Your task to perform on an android device: Open Google Chrome and click the shortcut for Amazon.com Image 0: 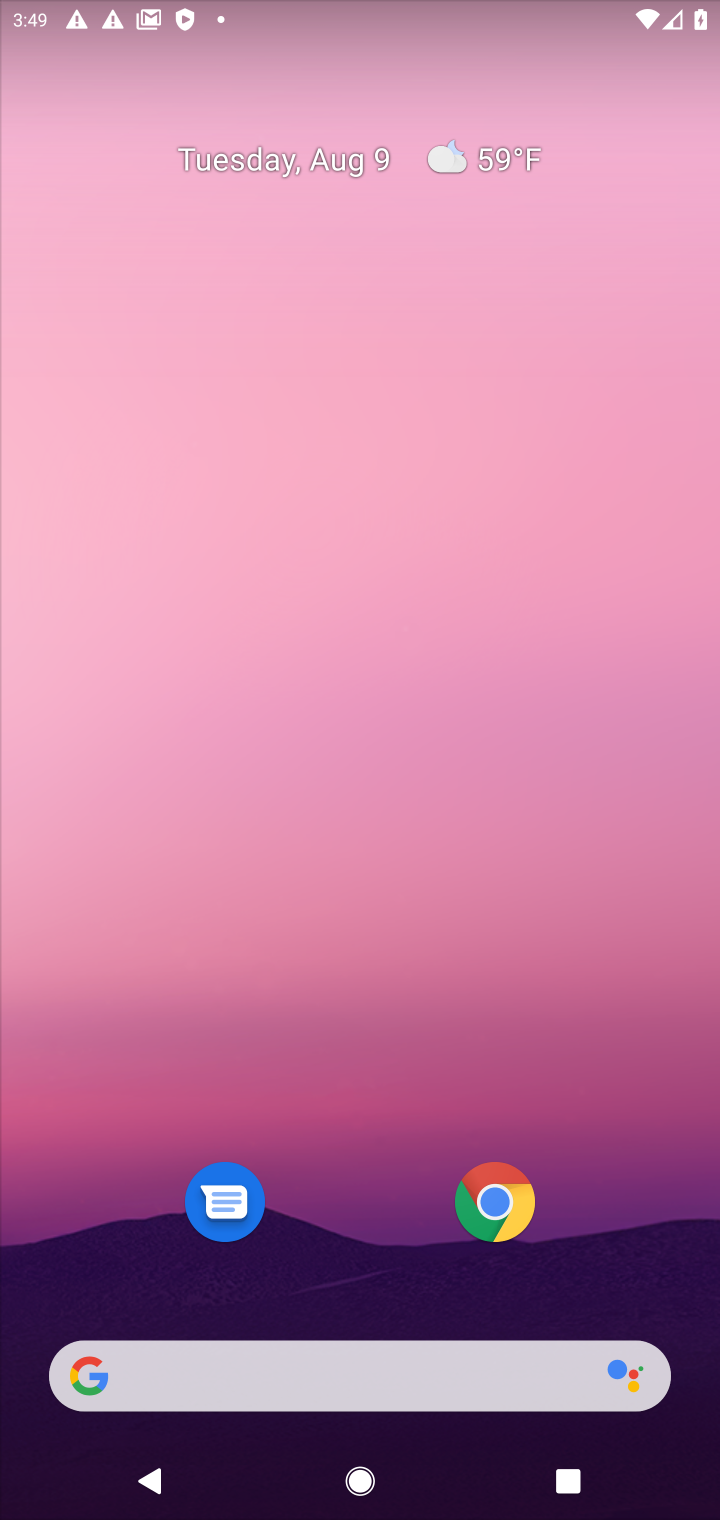
Step 0: press home button
Your task to perform on an android device: Open Google Chrome and click the shortcut for Amazon.com Image 1: 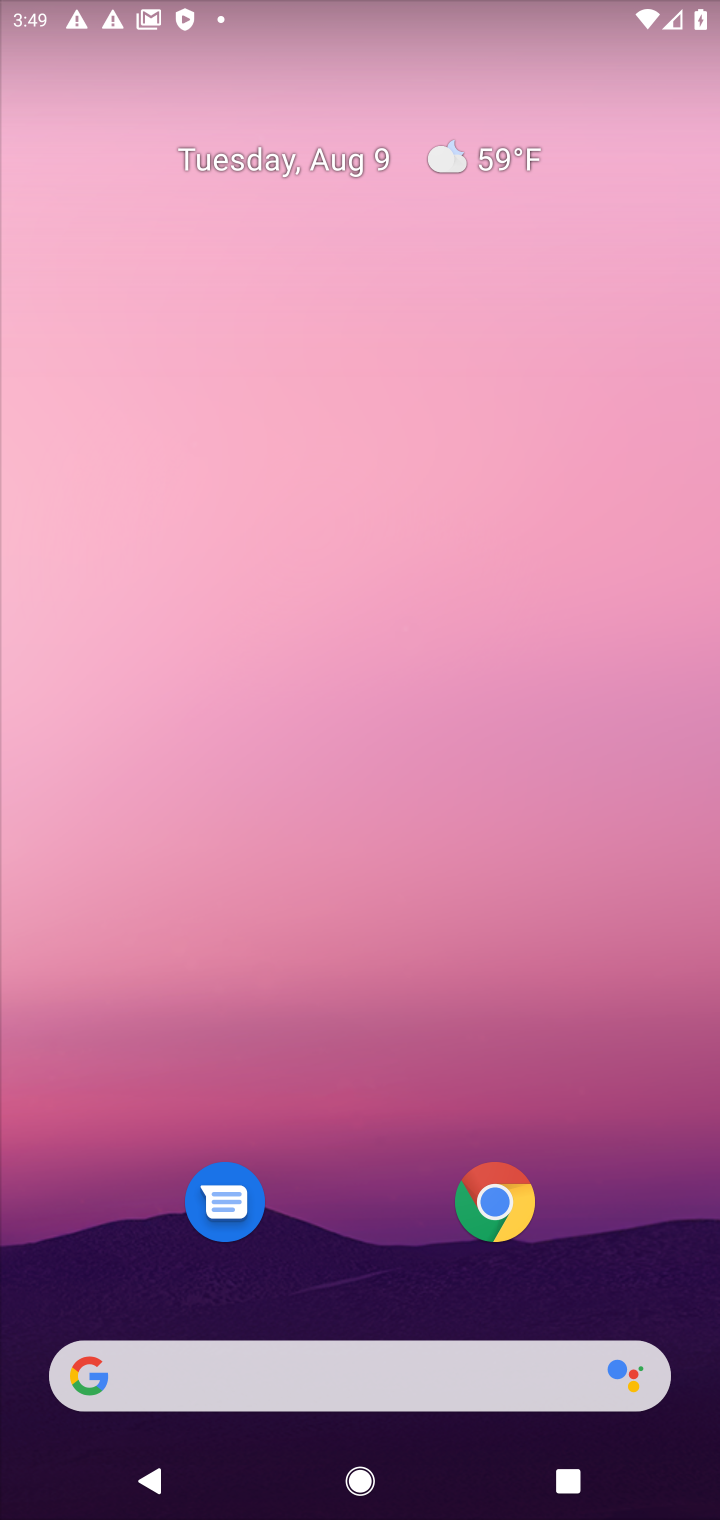
Step 1: drag from (371, 1289) to (428, 287)
Your task to perform on an android device: Open Google Chrome and click the shortcut for Amazon.com Image 2: 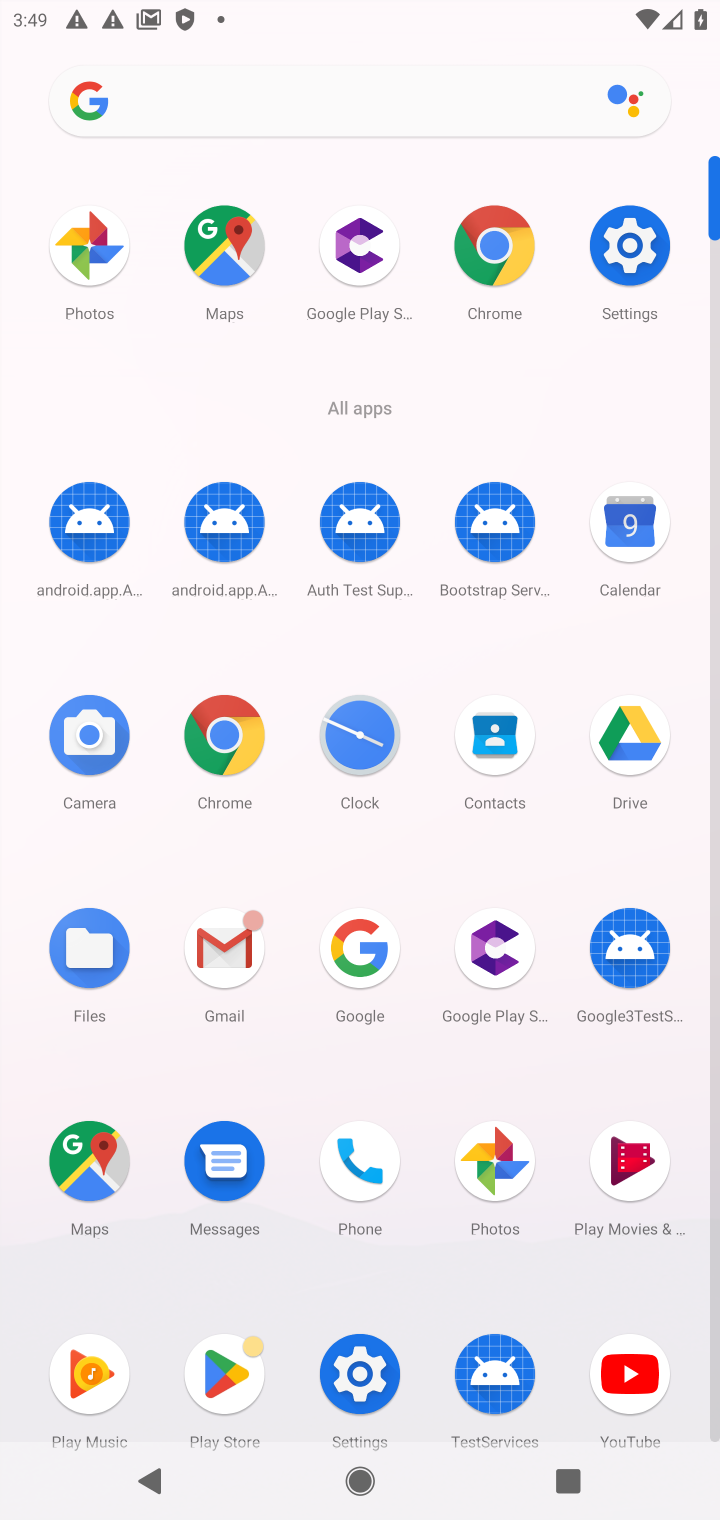
Step 2: click (231, 730)
Your task to perform on an android device: Open Google Chrome and click the shortcut for Amazon.com Image 3: 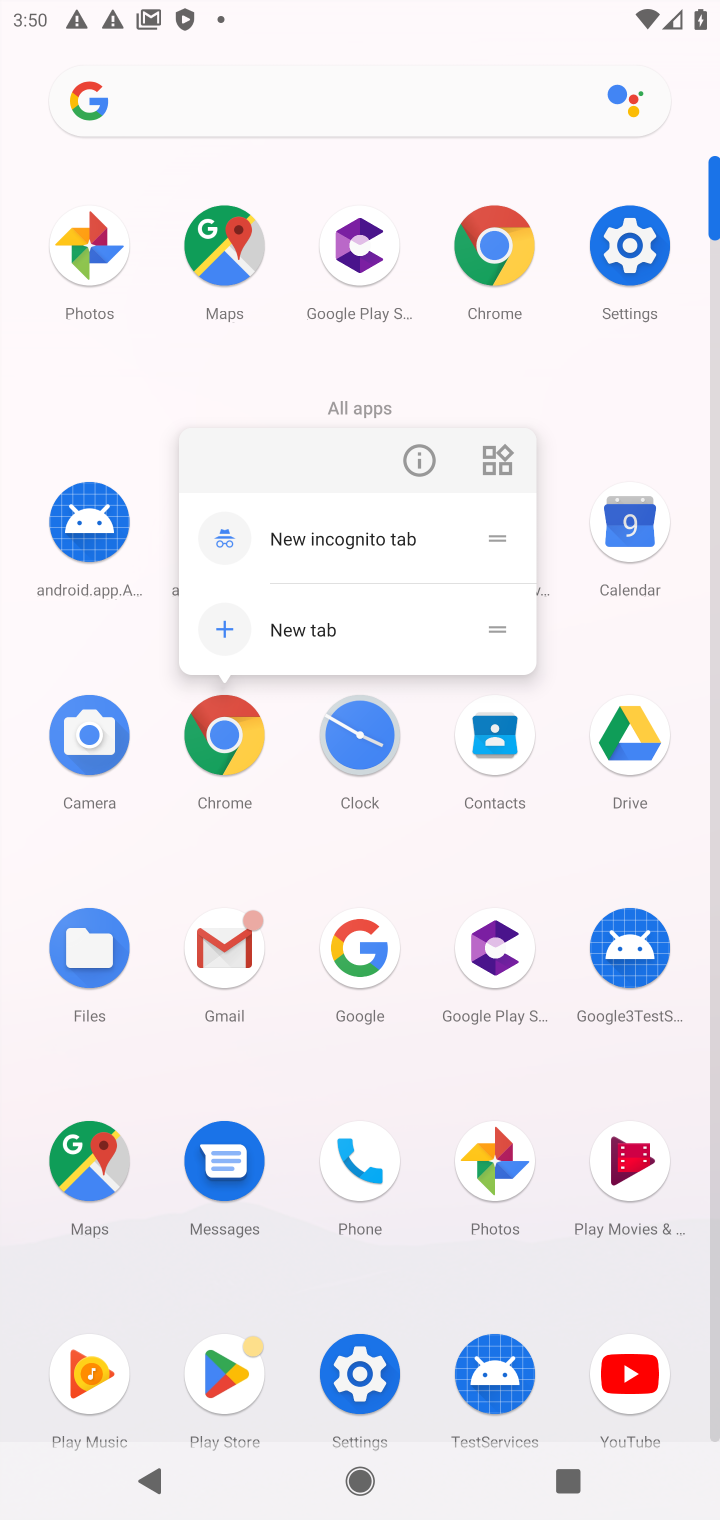
Step 3: click (216, 727)
Your task to perform on an android device: Open Google Chrome and click the shortcut for Amazon.com Image 4: 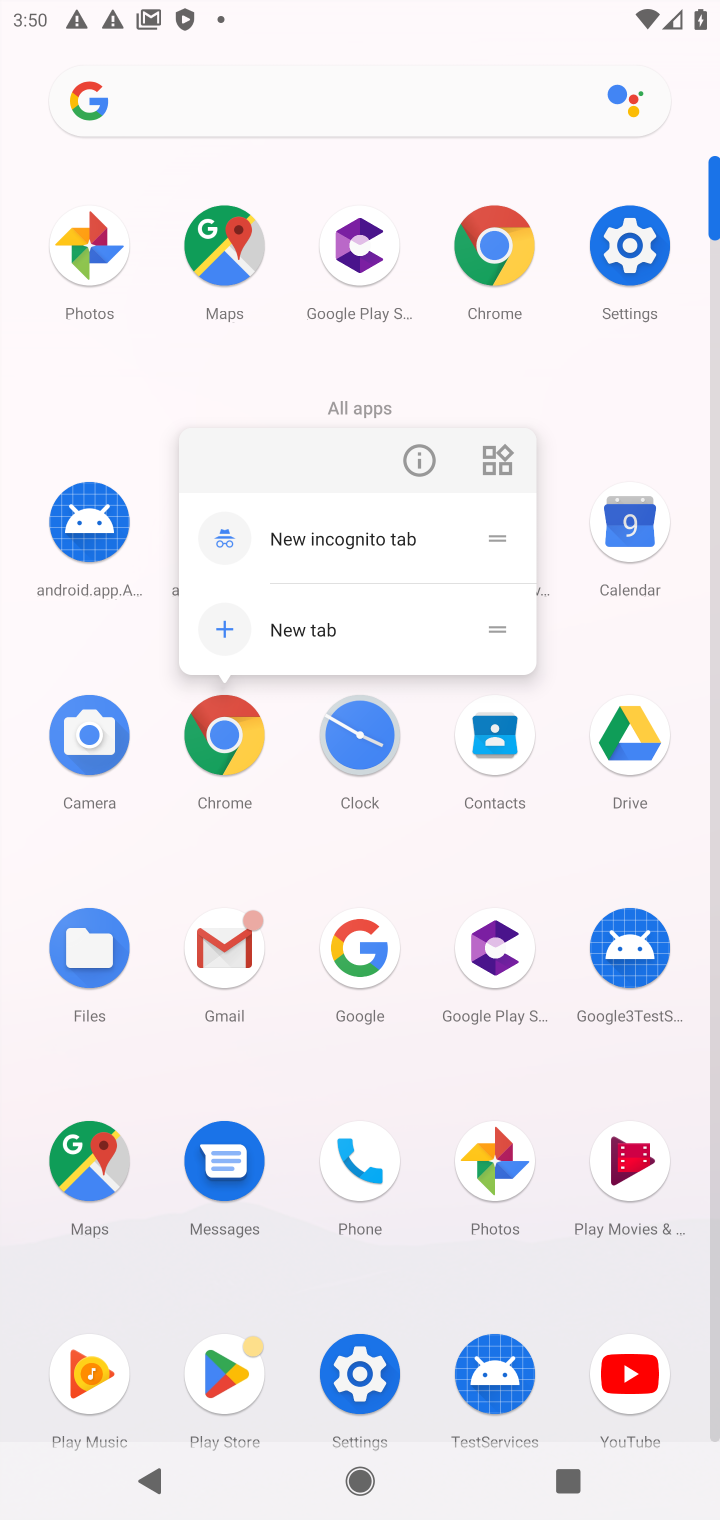
Step 4: click (217, 726)
Your task to perform on an android device: Open Google Chrome and click the shortcut for Amazon.com Image 5: 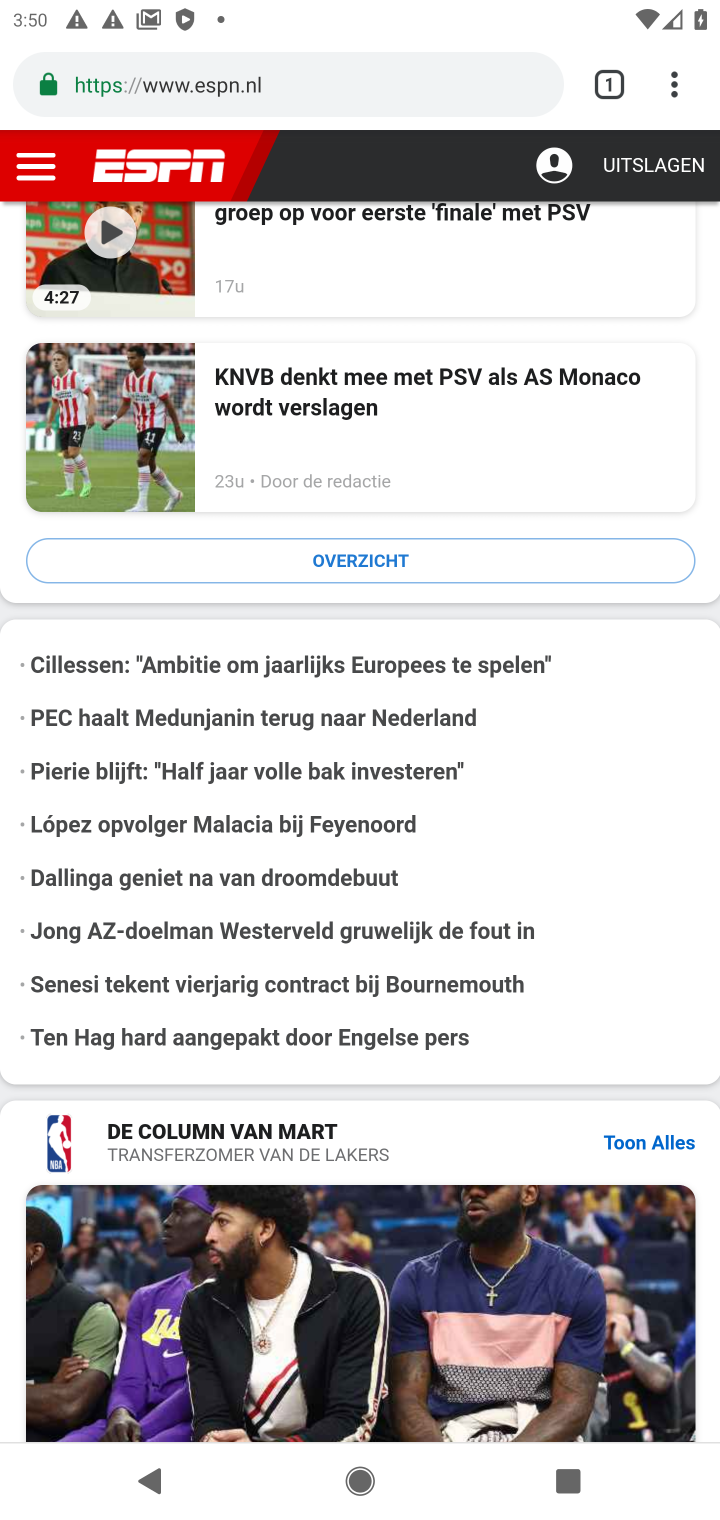
Step 5: click (618, 78)
Your task to perform on an android device: Open Google Chrome and click the shortcut for Amazon.com Image 6: 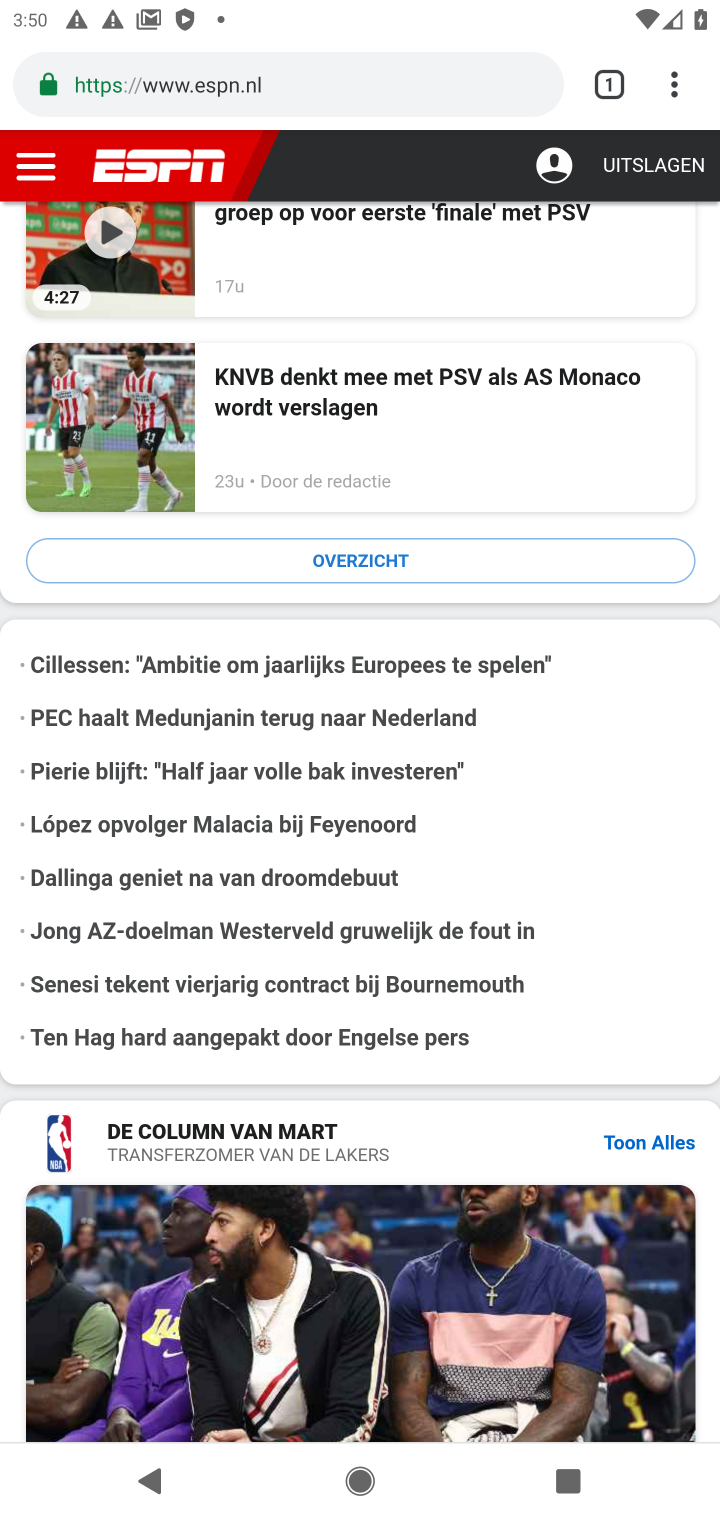
Step 6: click (603, 79)
Your task to perform on an android device: Open Google Chrome and click the shortcut for Amazon.com Image 7: 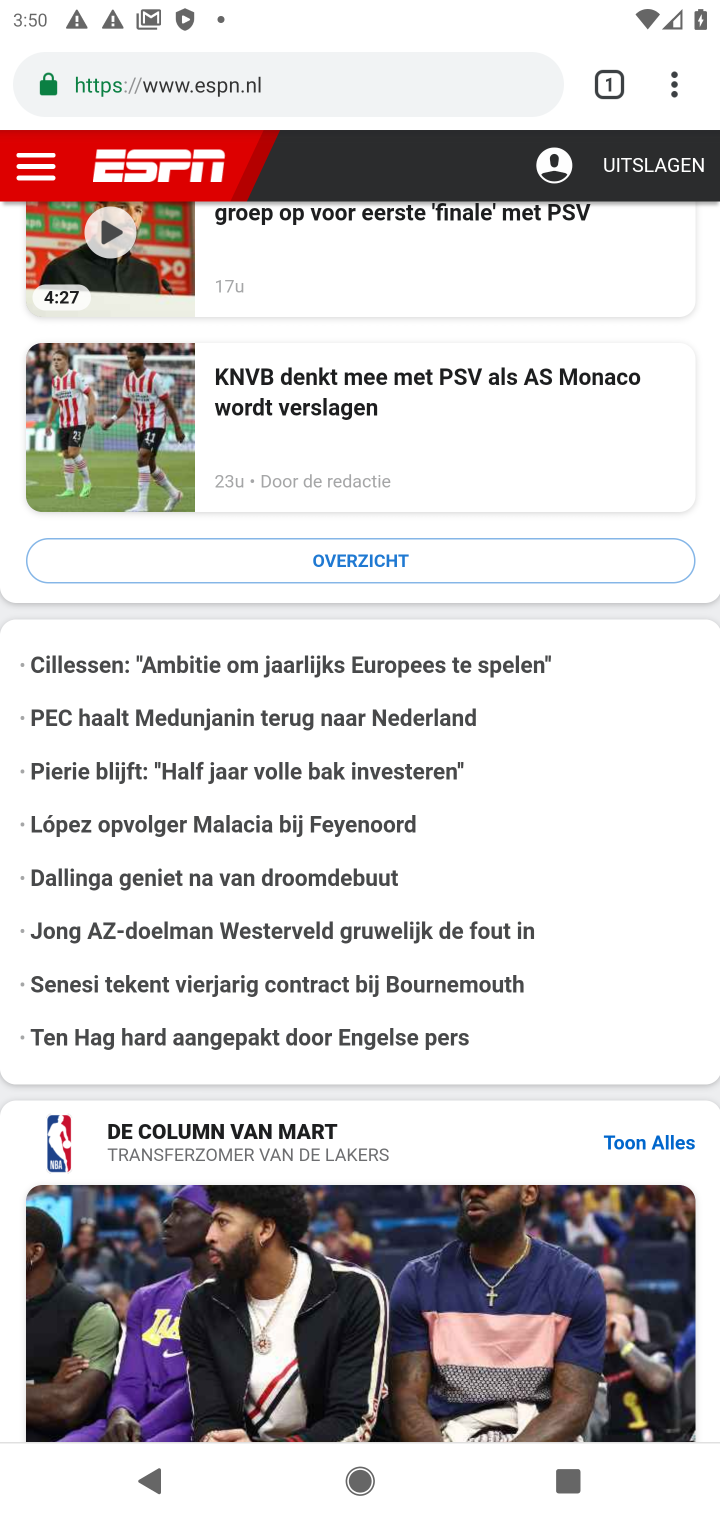
Step 7: click (601, 70)
Your task to perform on an android device: Open Google Chrome and click the shortcut for Amazon.com Image 8: 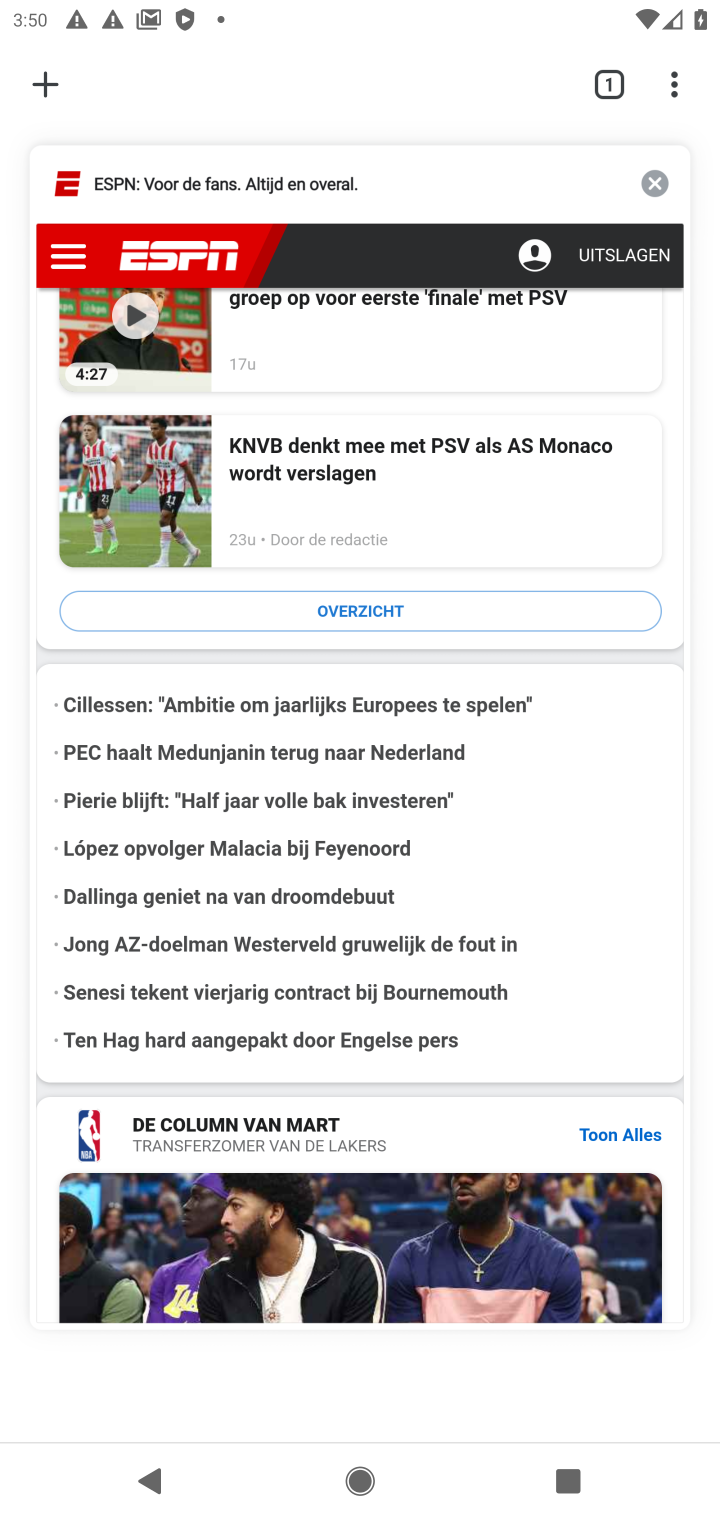
Step 8: click (45, 65)
Your task to perform on an android device: Open Google Chrome and click the shortcut for Amazon.com Image 9: 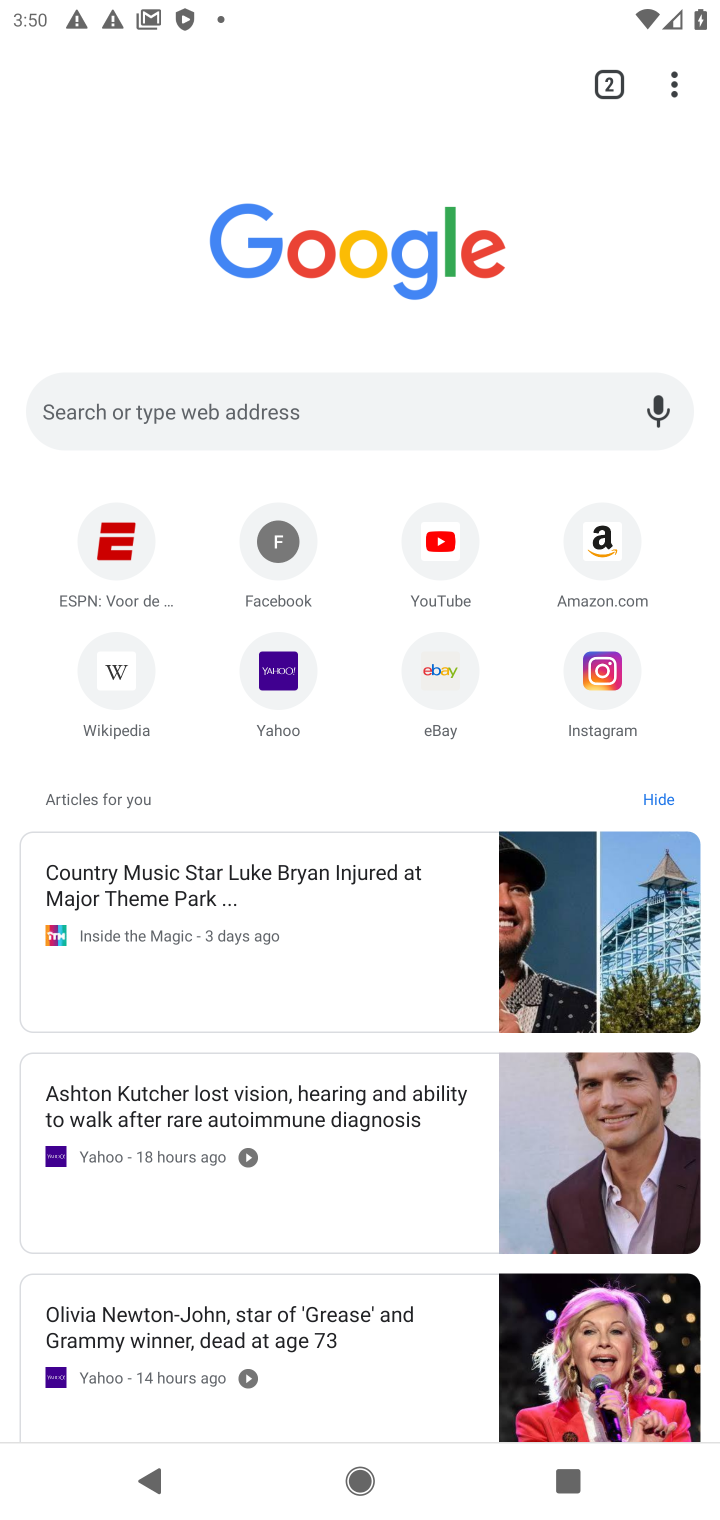
Step 9: click (601, 529)
Your task to perform on an android device: Open Google Chrome and click the shortcut for Amazon.com Image 10: 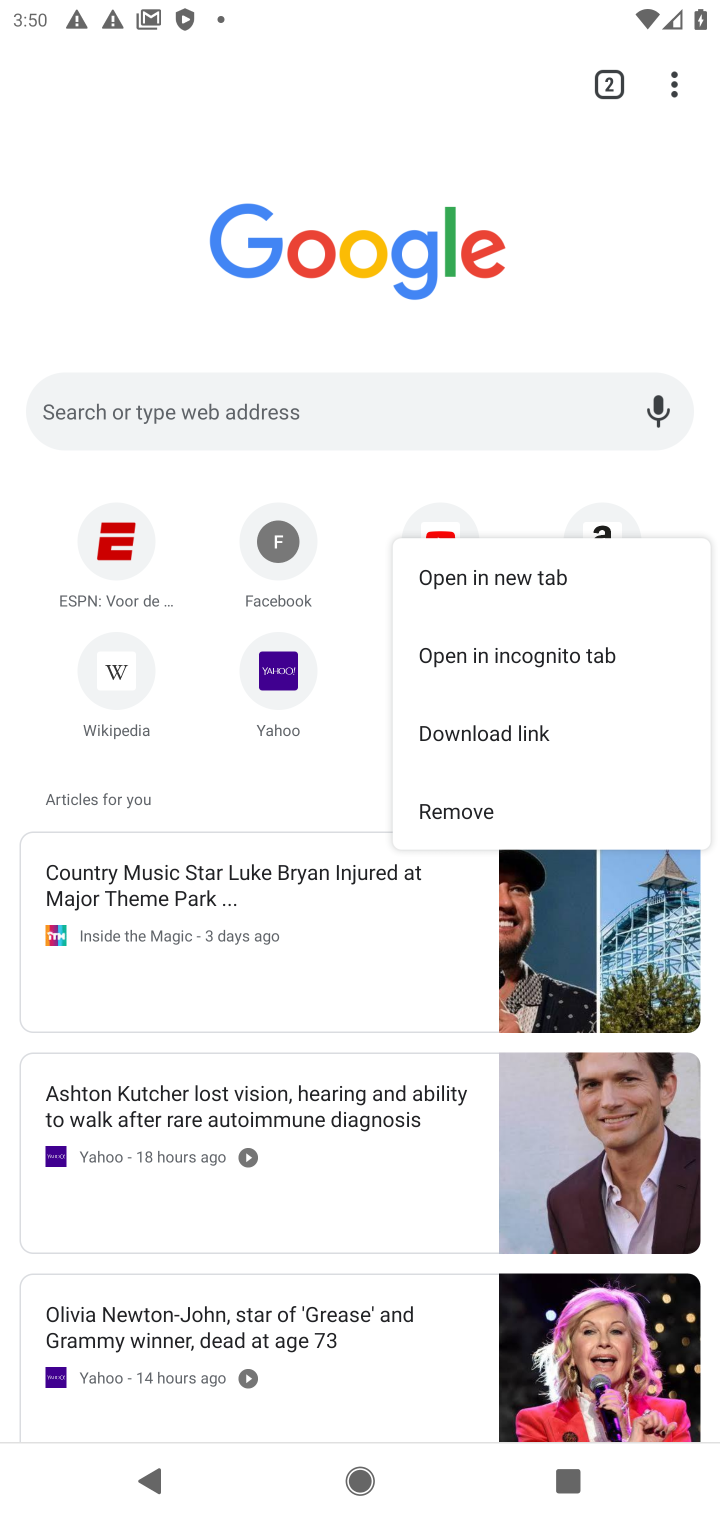
Step 10: click (614, 509)
Your task to perform on an android device: Open Google Chrome and click the shortcut for Amazon.com Image 11: 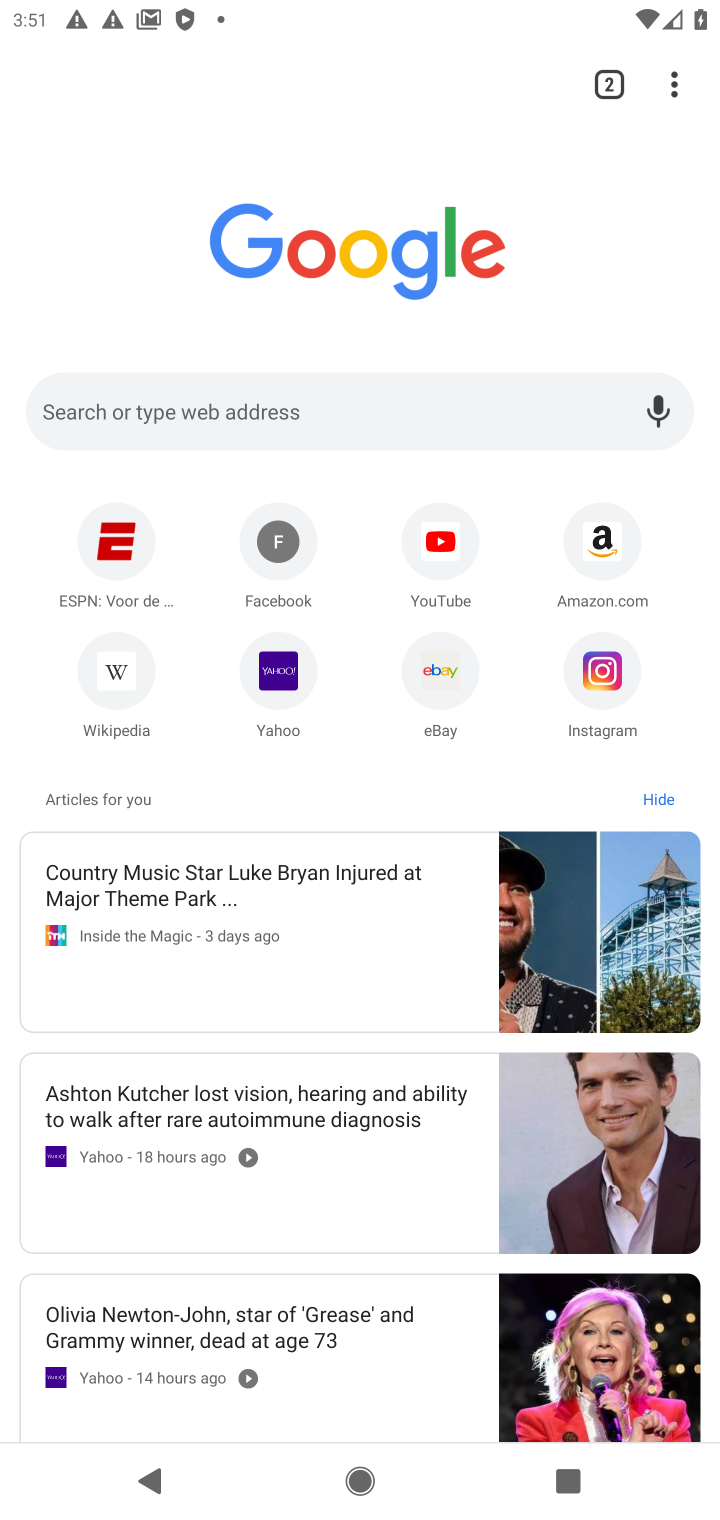
Step 11: click (598, 533)
Your task to perform on an android device: Open Google Chrome and click the shortcut for Amazon.com Image 12: 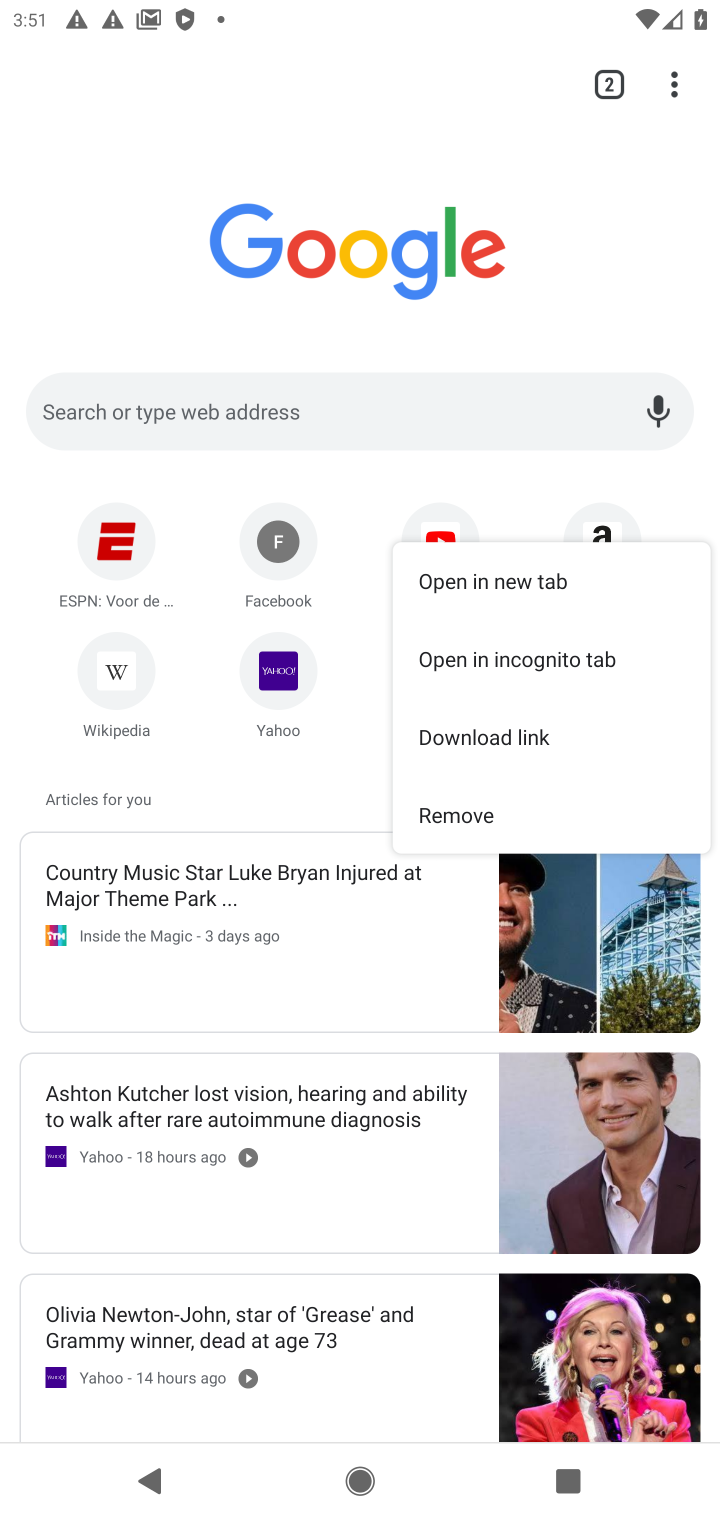
Step 12: click (580, 568)
Your task to perform on an android device: Open Google Chrome and click the shortcut for Amazon.com Image 13: 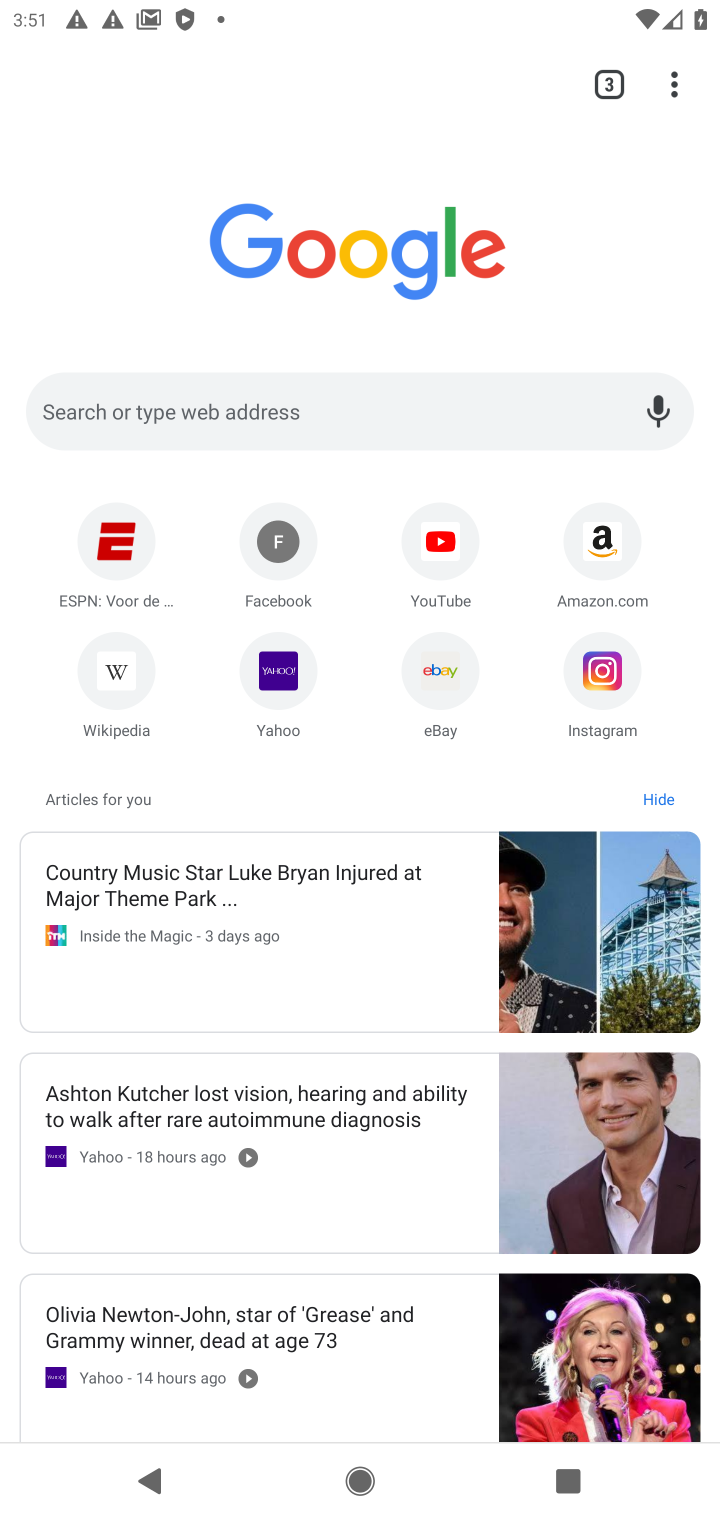
Step 13: click (588, 546)
Your task to perform on an android device: Open Google Chrome and click the shortcut for Amazon.com Image 14: 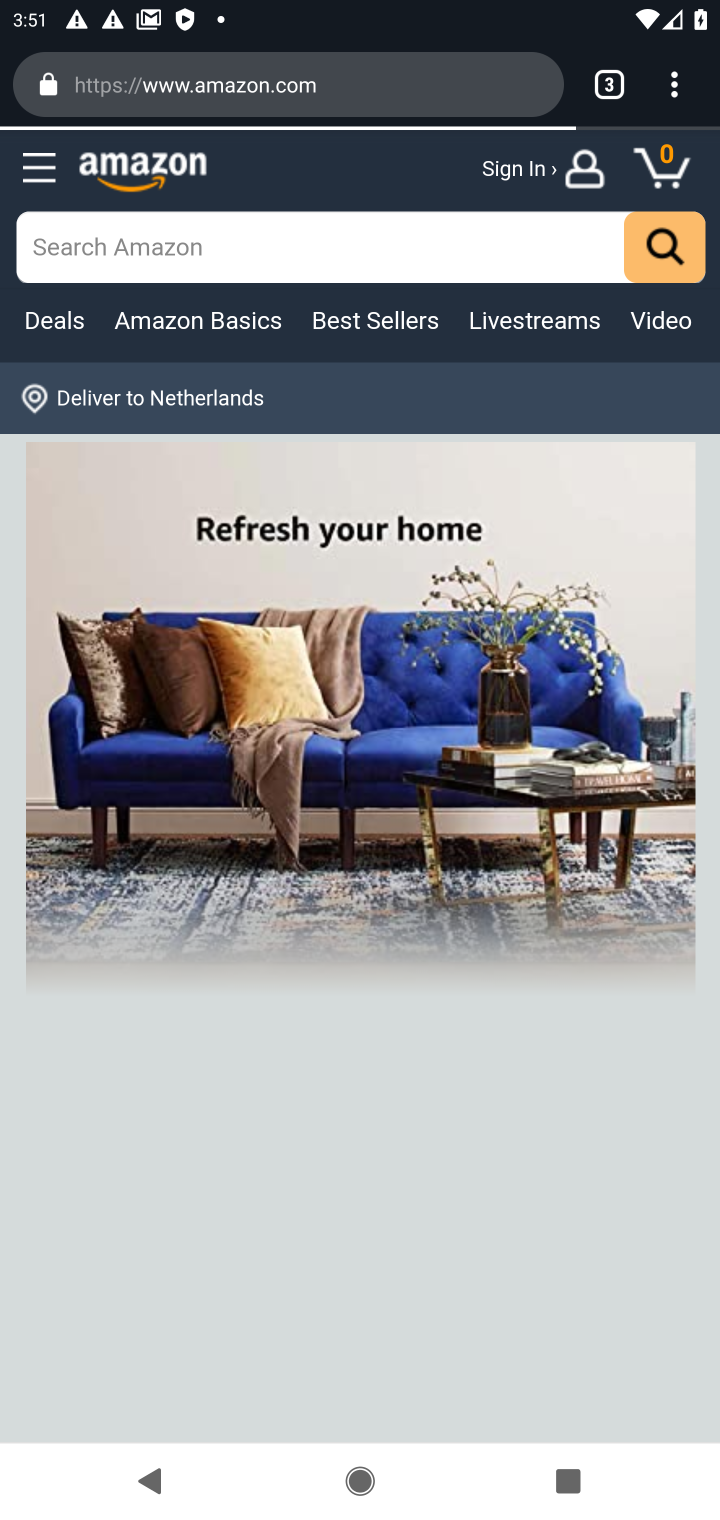
Step 14: task complete